Your task to perform on an android device: Open wifi settings Image 0: 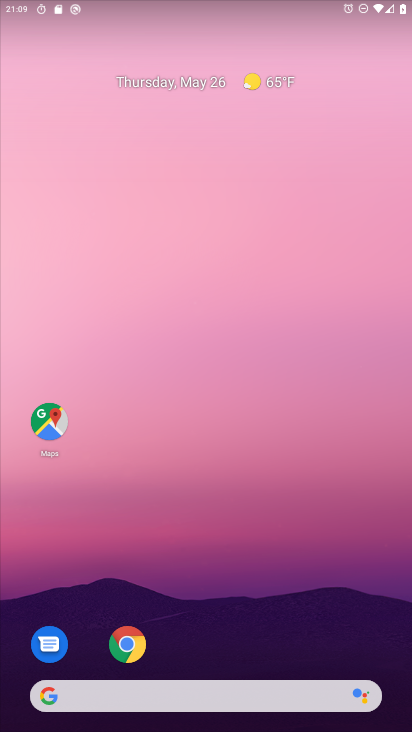
Step 0: click (225, 232)
Your task to perform on an android device: Open wifi settings Image 1: 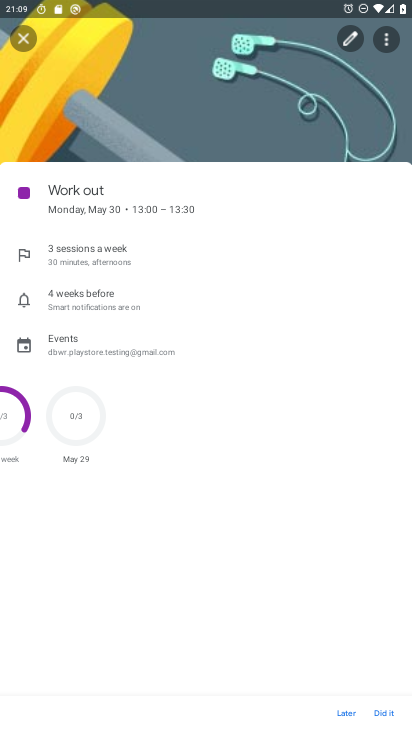
Step 1: press home button
Your task to perform on an android device: Open wifi settings Image 2: 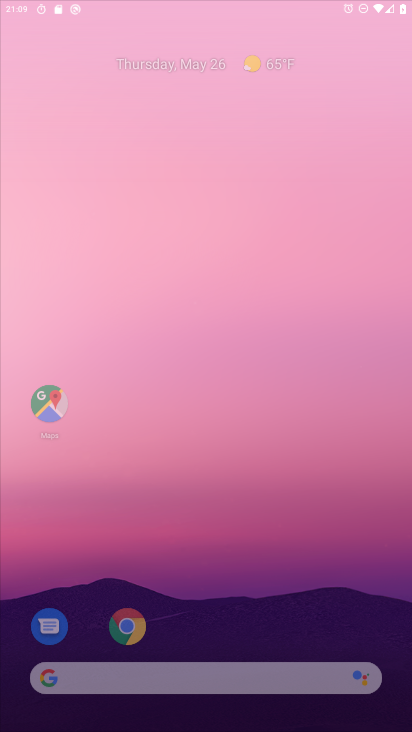
Step 2: drag from (212, 630) to (224, 191)
Your task to perform on an android device: Open wifi settings Image 3: 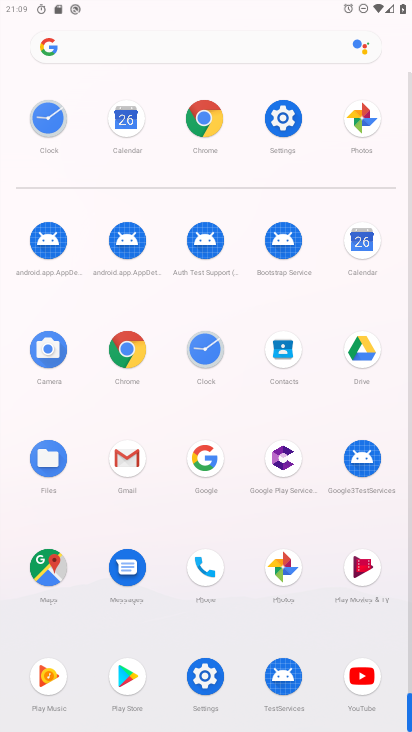
Step 3: drag from (168, 612) to (173, 308)
Your task to perform on an android device: Open wifi settings Image 4: 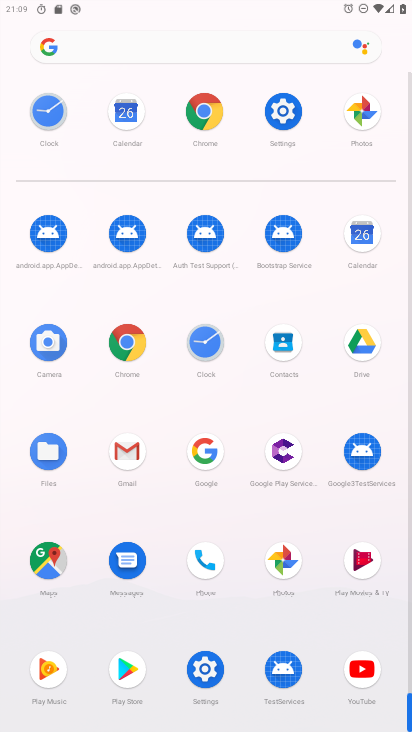
Step 4: click (280, 113)
Your task to perform on an android device: Open wifi settings Image 5: 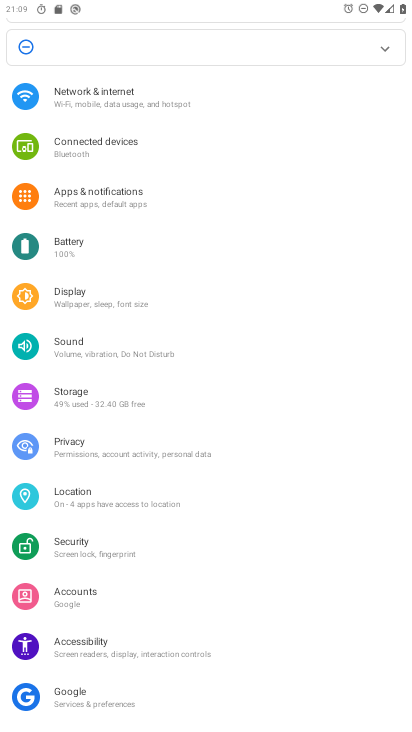
Step 5: click (103, 100)
Your task to perform on an android device: Open wifi settings Image 6: 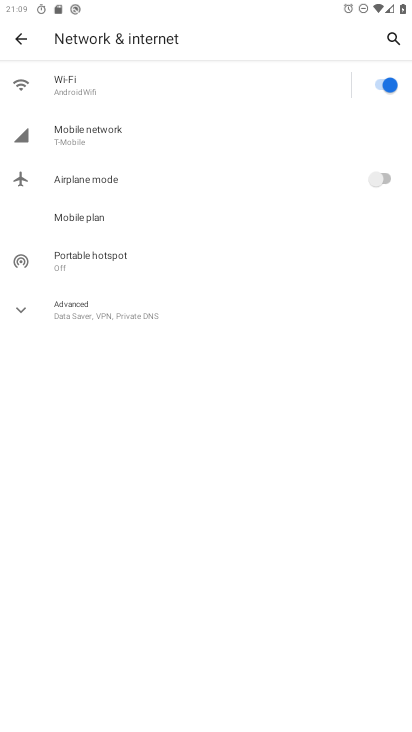
Step 6: click (134, 84)
Your task to perform on an android device: Open wifi settings Image 7: 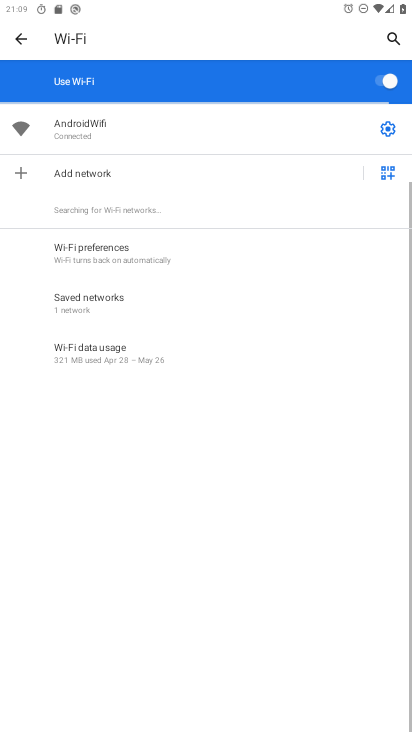
Step 7: click (381, 131)
Your task to perform on an android device: Open wifi settings Image 8: 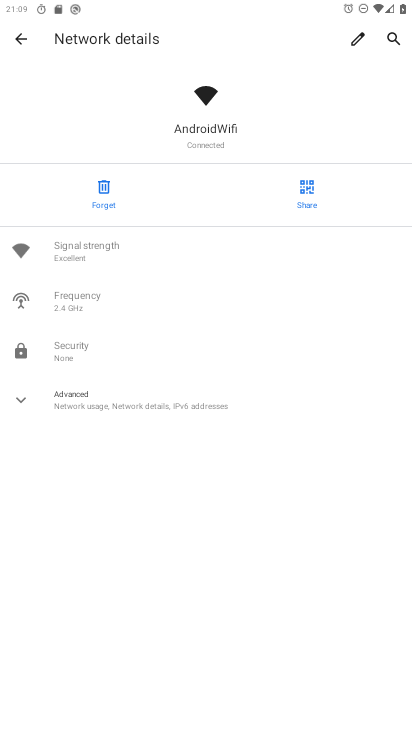
Step 8: task complete